Your task to perform on an android device: change timer sound Image 0: 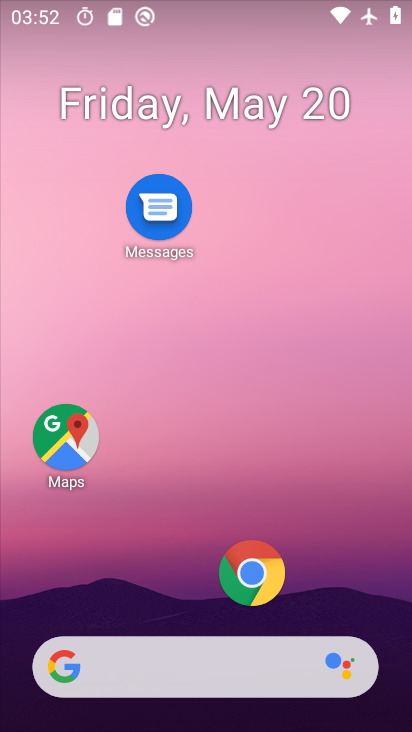
Step 0: drag from (204, 608) to (209, 183)
Your task to perform on an android device: change timer sound Image 1: 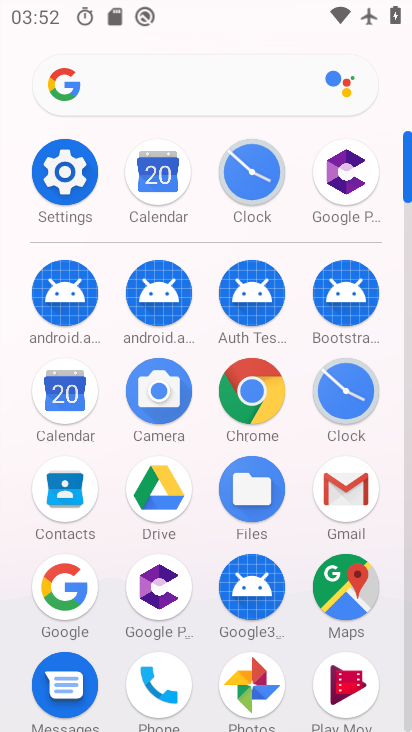
Step 1: click (236, 196)
Your task to perform on an android device: change timer sound Image 2: 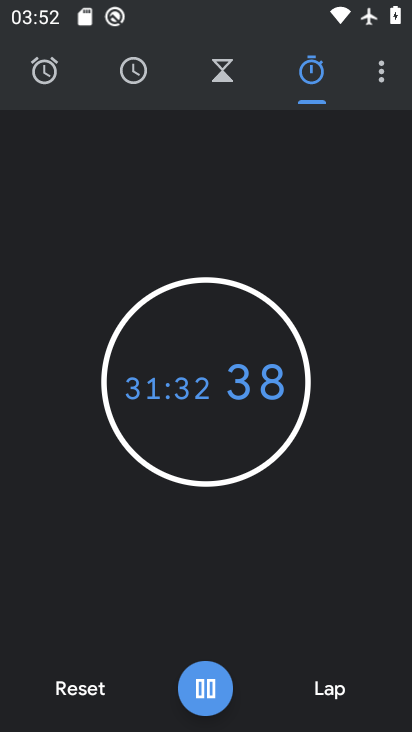
Step 2: click (369, 67)
Your task to perform on an android device: change timer sound Image 3: 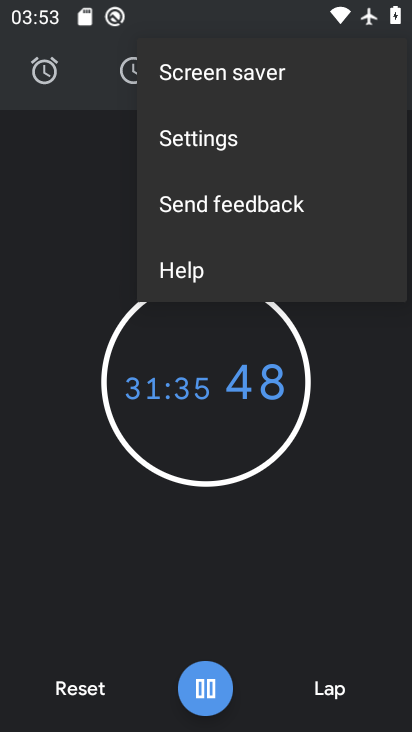
Step 3: click (224, 140)
Your task to perform on an android device: change timer sound Image 4: 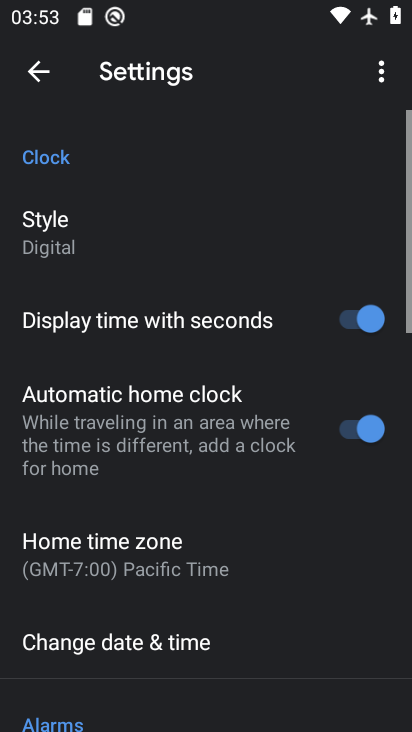
Step 4: drag from (247, 592) to (224, 334)
Your task to perform on an android device: change timer sound Image 5: 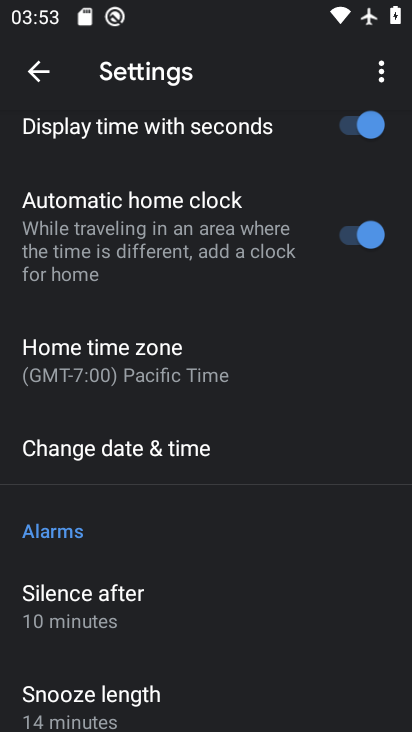
Step 5: drag from (218, 562) to (226, 309)
Your task to perform on an android device: change timer sound Image 6: 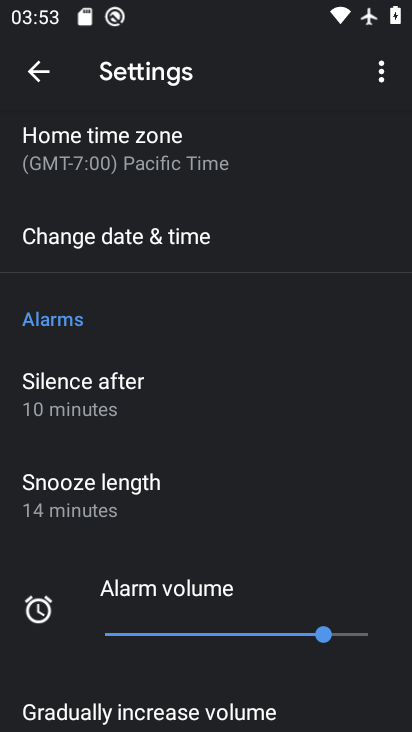
Step 6: drag from (173, 550) to (180, 378)
Your task to perform on an android device: change timer sound Image 7: 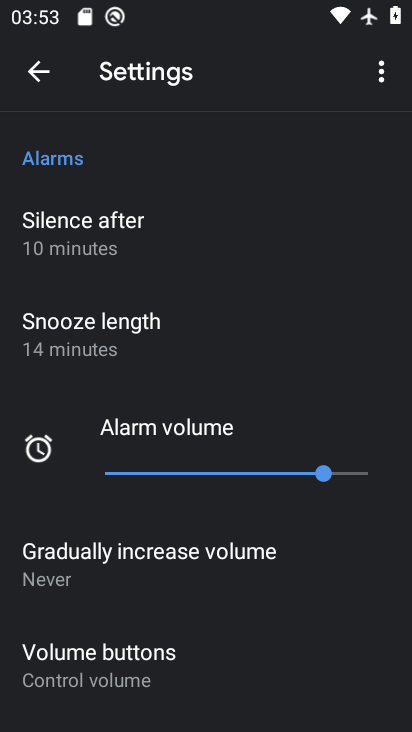
Step 7: drag from (187, 600) to (193, 334)
Your task to perform on an android device: change timer sound Image 8: 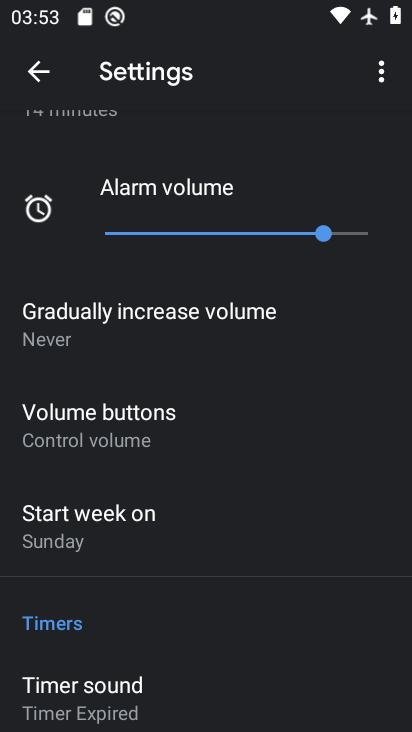
Step 8: drag from (185, 640) to (195, 447)
Your task to perform on an android device: change timer sound Image 9: 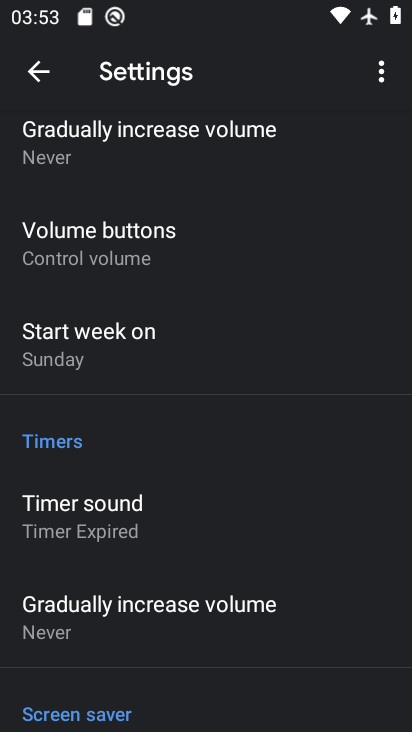
Step 9: click (144, 510)
Your task to perform on an android device: change timer sound Image 10: 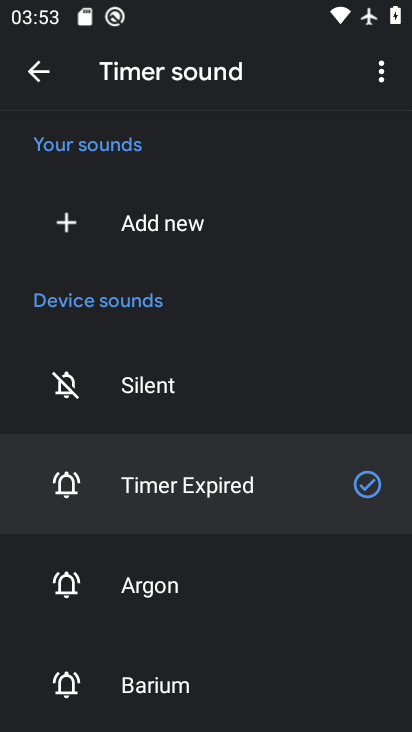
Step 10: drag from (206, 664) to (217, 398)
Your task to perform on an android device: change timer sound Image 11: 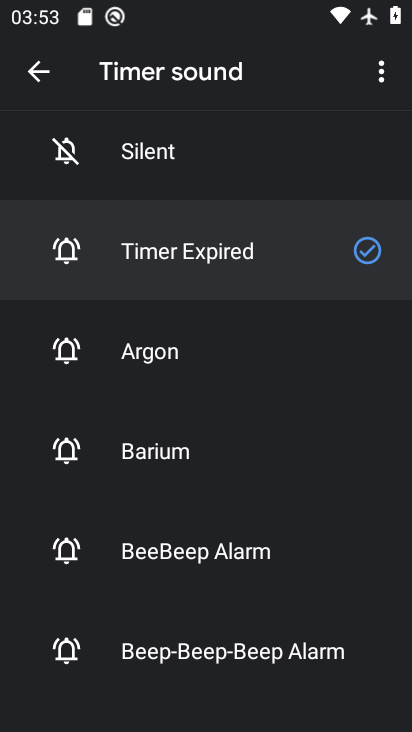
Step 11: click (175, 458)
Your task to perform on an android device: change timer sound Image 12: 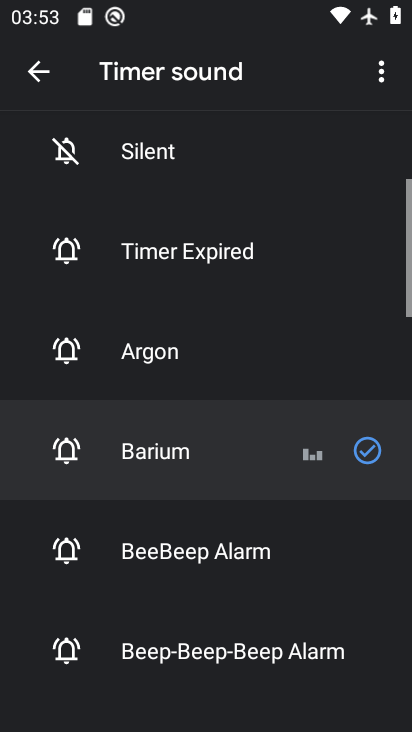
Step 12: task complete